Your task to perform on an android device: Open privacy settings Image 0: 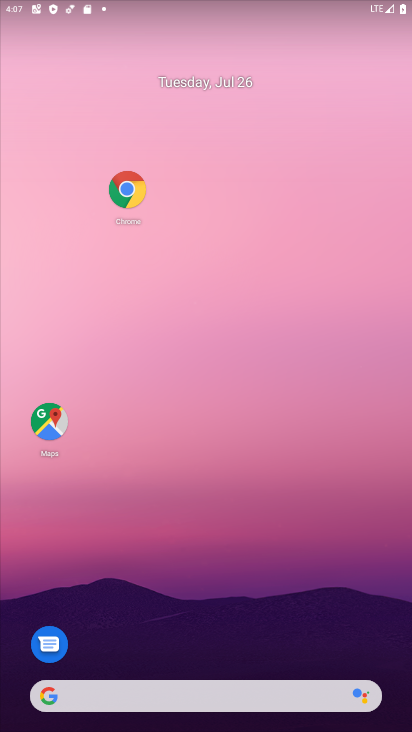
Step 0: click (189, 279)
Your task to perform on an android device: Open privacy settings Image 1: 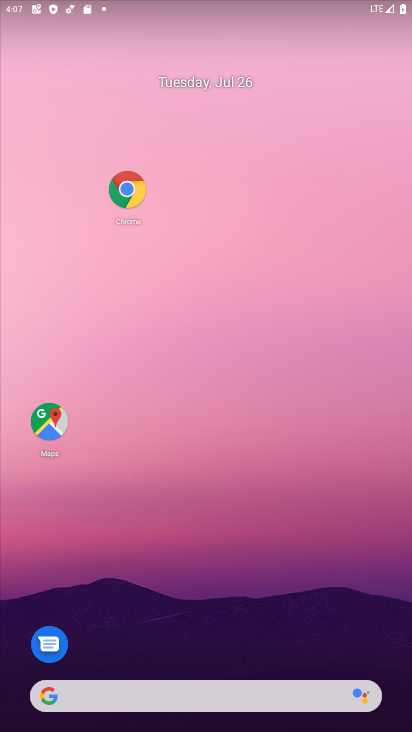
Step 1: drag from (245, 666) to (203, 114)
Your task to perform on an android device: Open privacy settings Image 2: 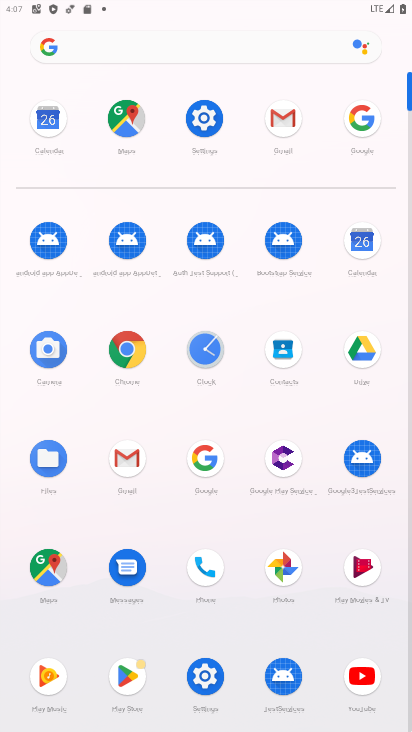
Step 2: click (203, 124)
Your task to perform on an android device: Open privacy settings Image 3: 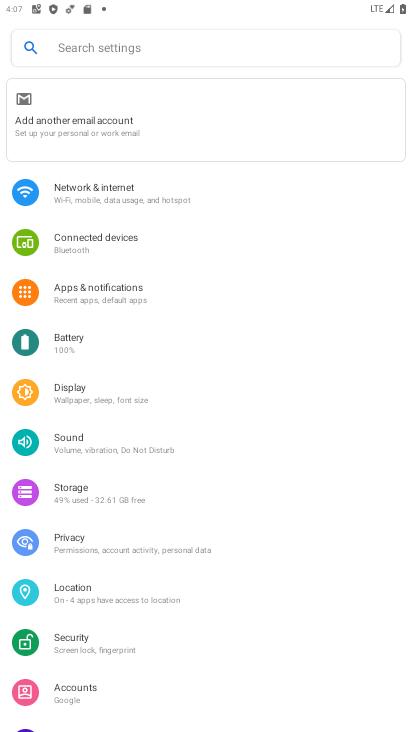
Step 3: click (117, 552)
Your task to perform on an android device: Open privacy settings Image 4: 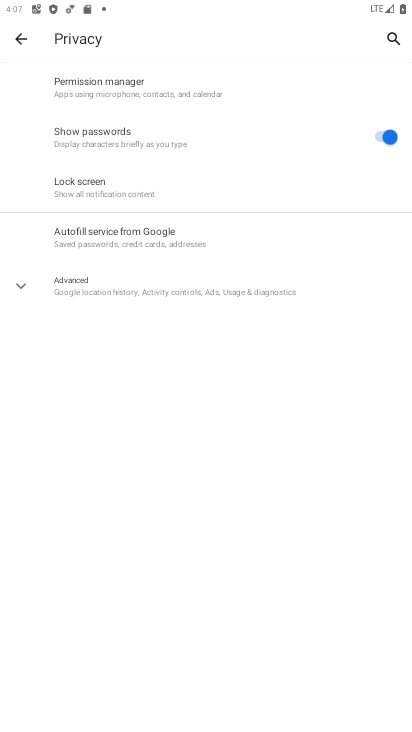
Step 4: click (80, 276)
Your task to perform on an android device: Open privacy settings Image 5: 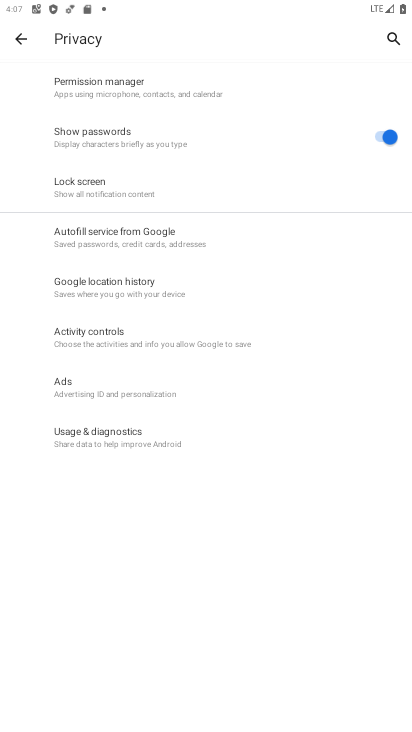
Step 5: task complete